Your task to perform on an android device: find which apps use the phone's location Image 0: 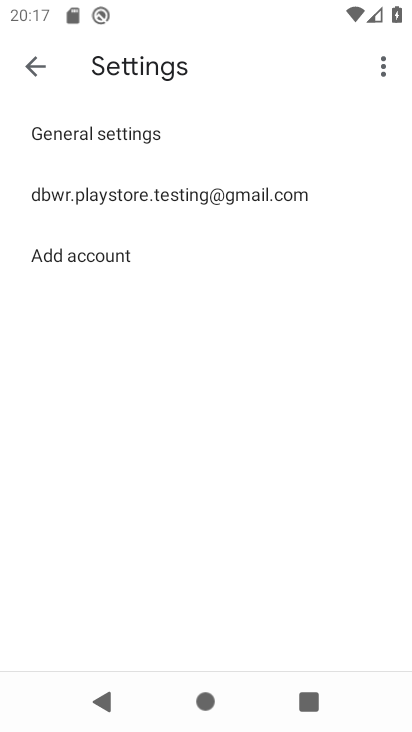
Step 0: press home button
Your task to perform on an android device: find which apps use the phone's location Image 1: 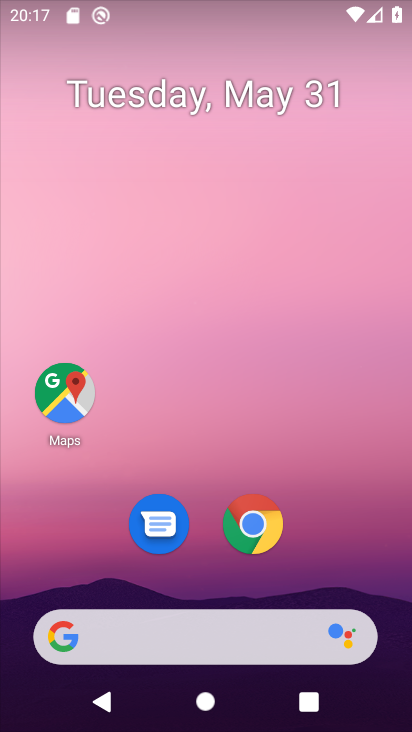
Step 1: drag from (294, 532) to (282, 0)
Your task to perform on an android device: find which apps use the phone's location Image 2: 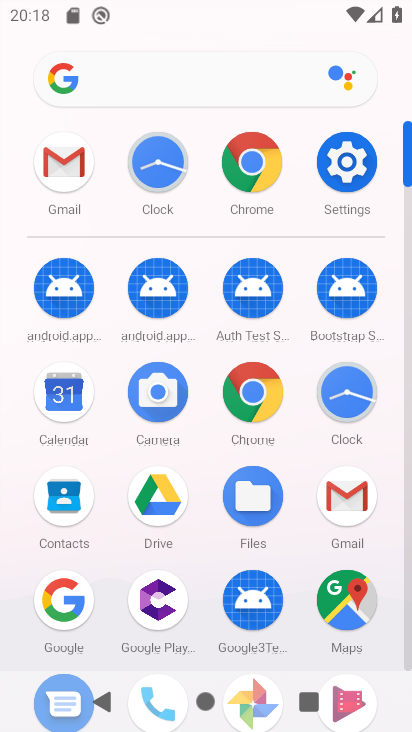
Step 2: click (355, 155)
Your task to perform on an android device: find which apps use the phone's location Image 3: 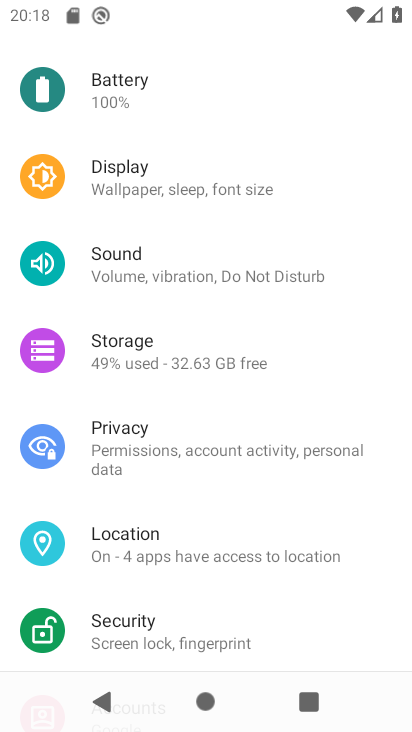
Step 3: click (204, 540)
Your task to perform on an android device: find which apps use the phone's location Image 4: 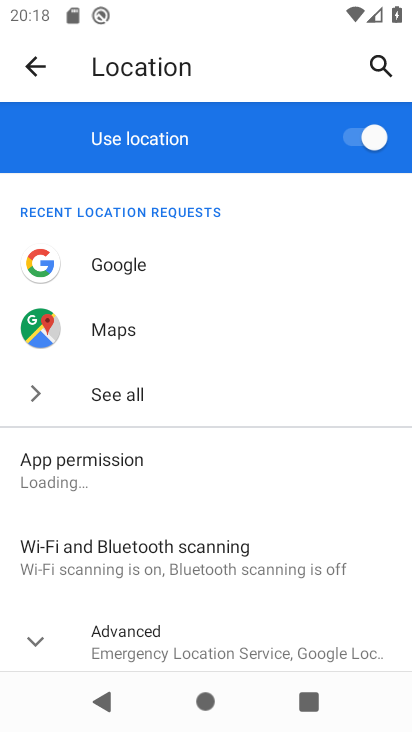
Step 4: click (140, 452)
Your task to perform on an android device: find which apps use the phone's location Image 5: 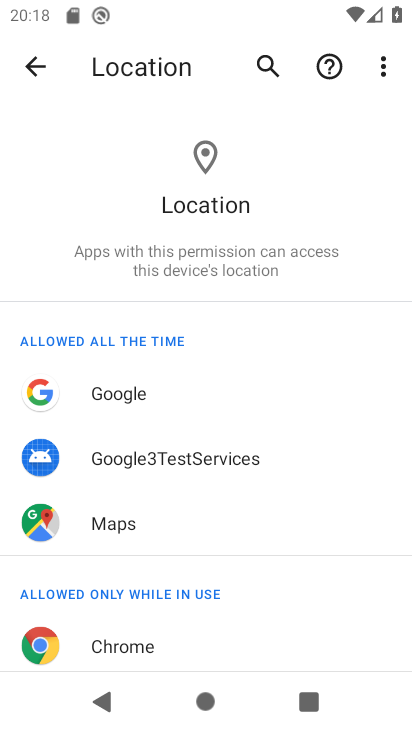
Step 5: task complete